Your task to perform on an android device: turn smart compose on in the gmail app Image 0: 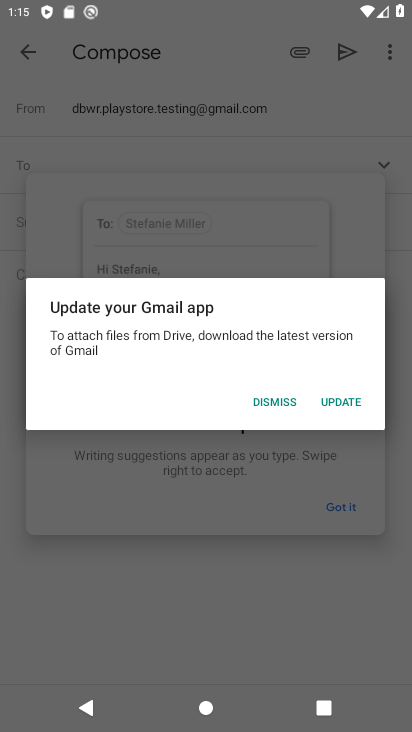
Step 0: press home button
Your task to perform on an android device: turn smart compose on in the gmail app Image 1: 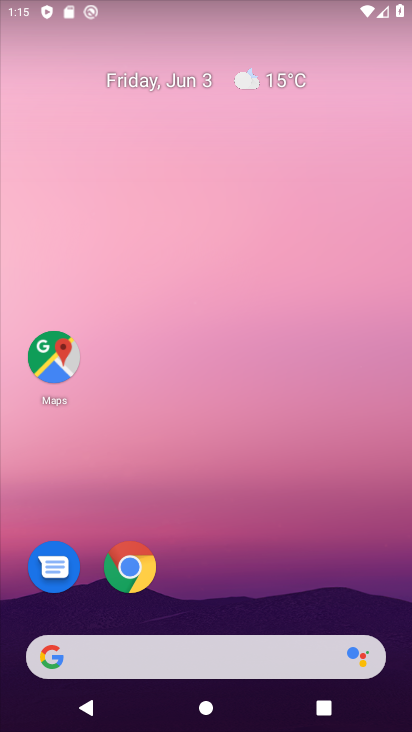
Step 1: drag from (236, 579) to (184, 80)
Your task to perform on an android device: turn smart compose on in the gmail app Image 2: 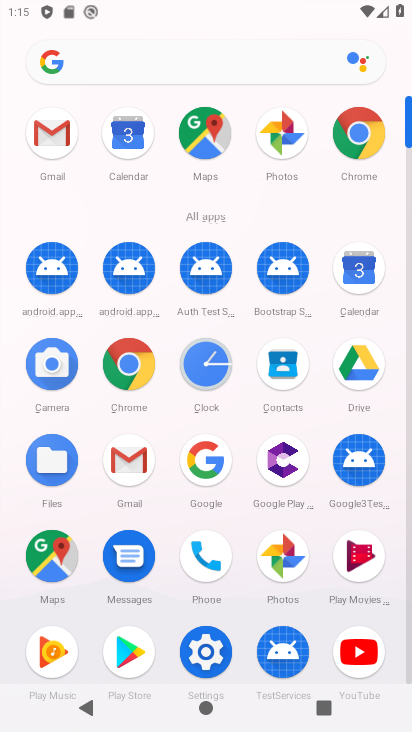
Step 2: click (123, 449)
Your task to perform on an android device: turn smart compose on in the gmail app Image 3: 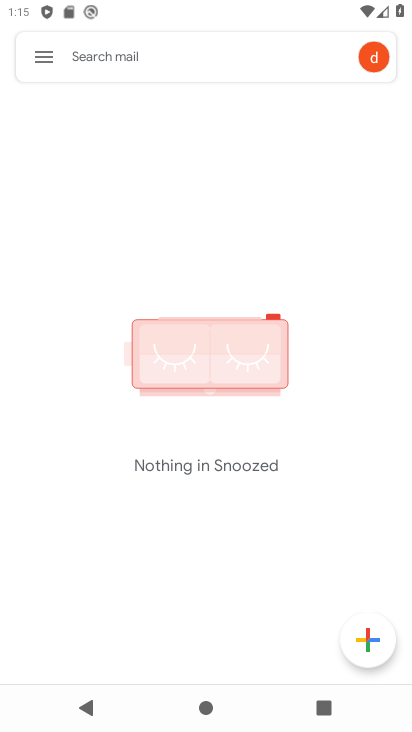
Step 3: click (41, 51)
Your task to perform on an android device: turn smart compose on in the gmail app Image 4: 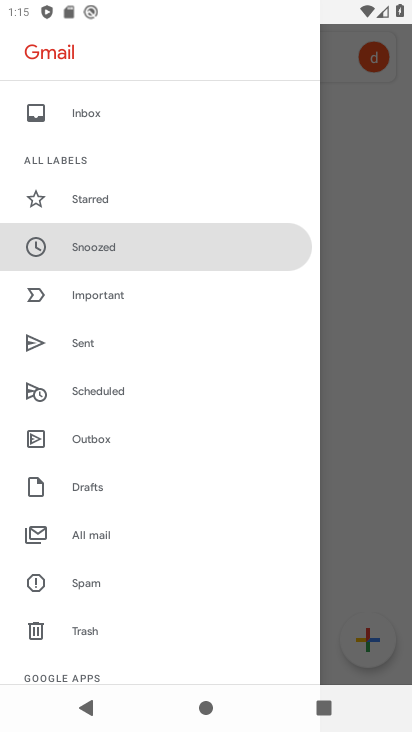
Step 4: drag from (177, 596) to (154, 168)
Your task to perform on an android device: turn smart compose on in the gmail app Image 5: 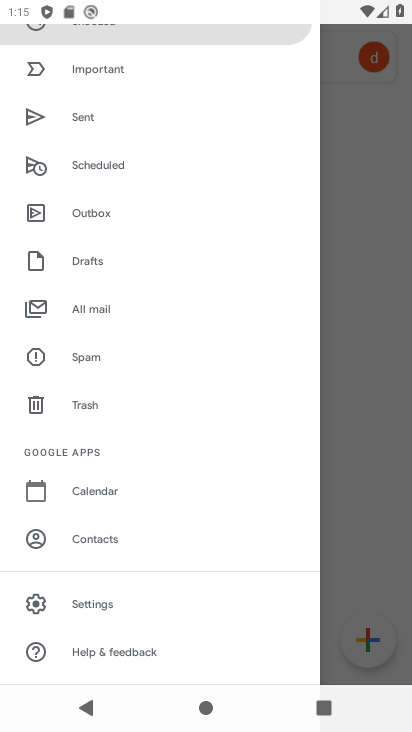
Step 5: click (107, 602)
Your task to perform on an android device: turn smart compose on in the gmail app Image 6: 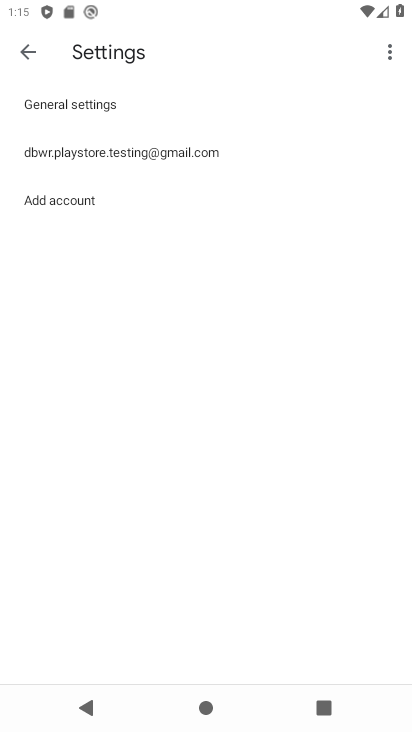
Step 6: click (140, 160)
Your task to perform on an android device: turn smart compose on in the gmail app Image 7: 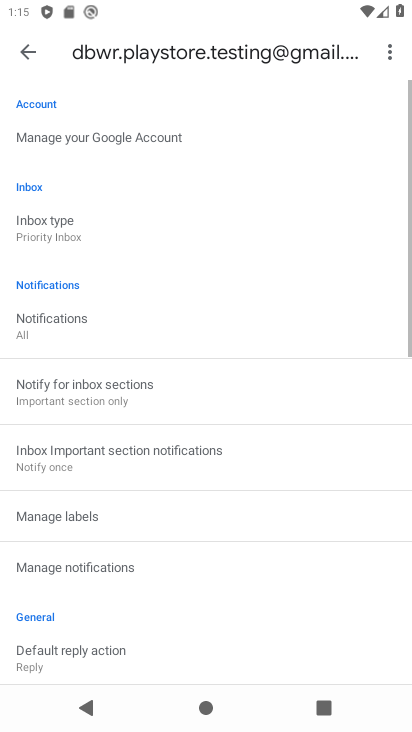
Step 7: task complete